Your task to perform on an android device: Check the news Image 0: 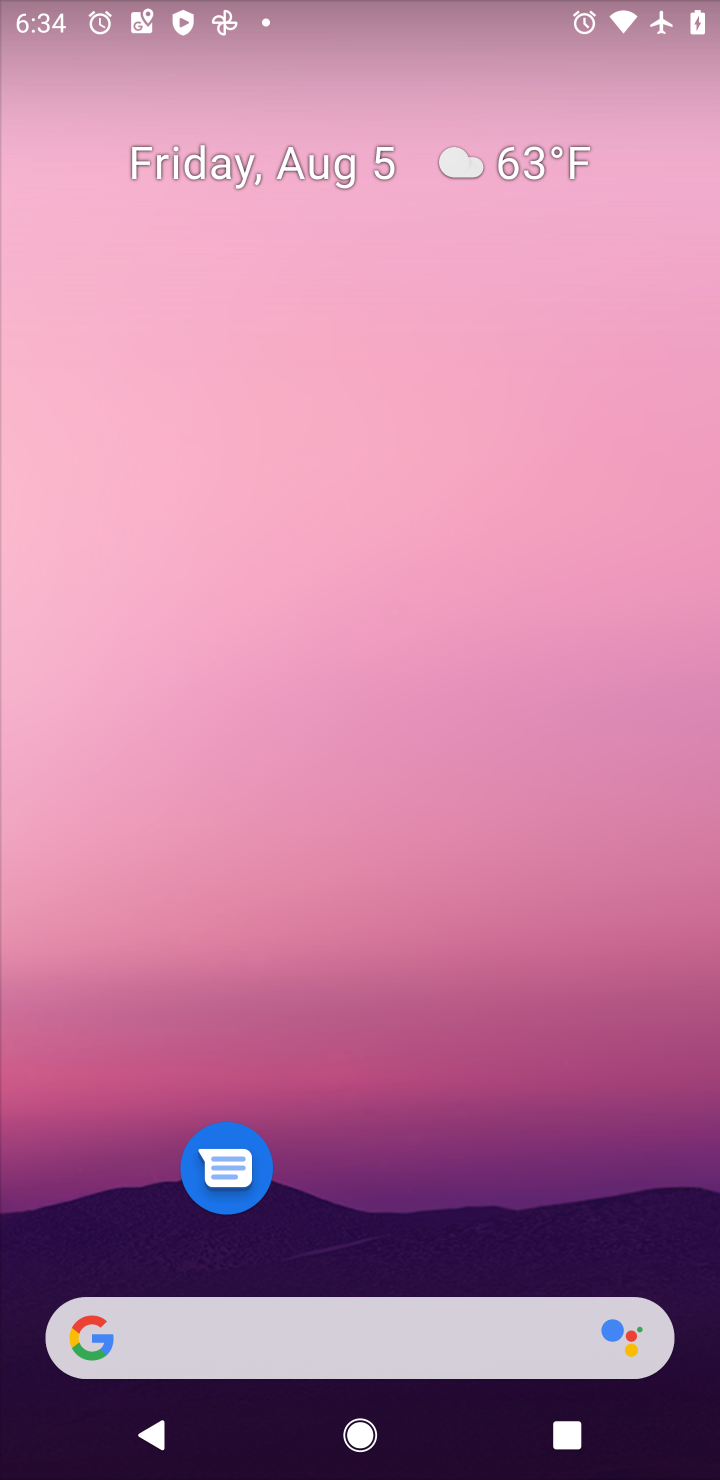
Step 0: click (97, 1327)
Your task to perform on an android device: Check the news Image 1: 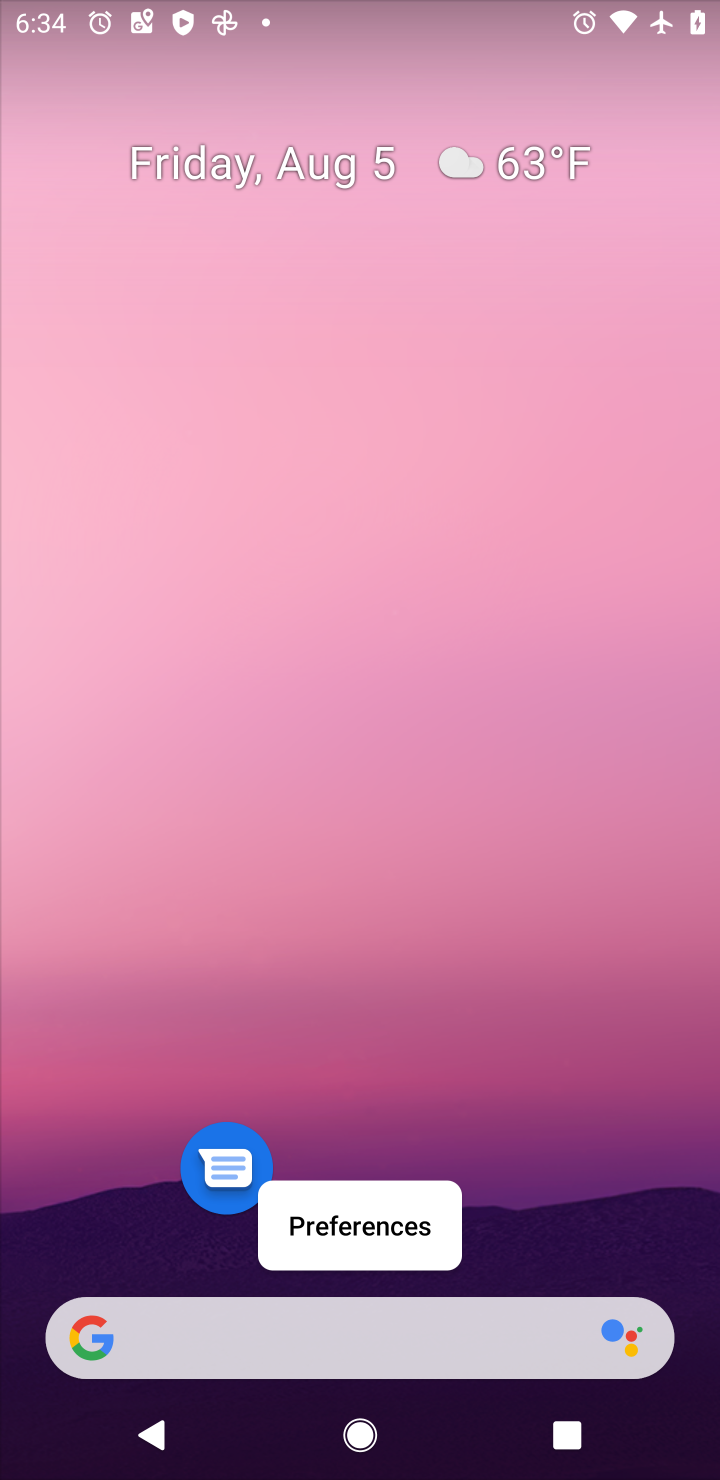
Step 1: click (87, 1359)
Your task to perform on an android device: Check the news Image 2: 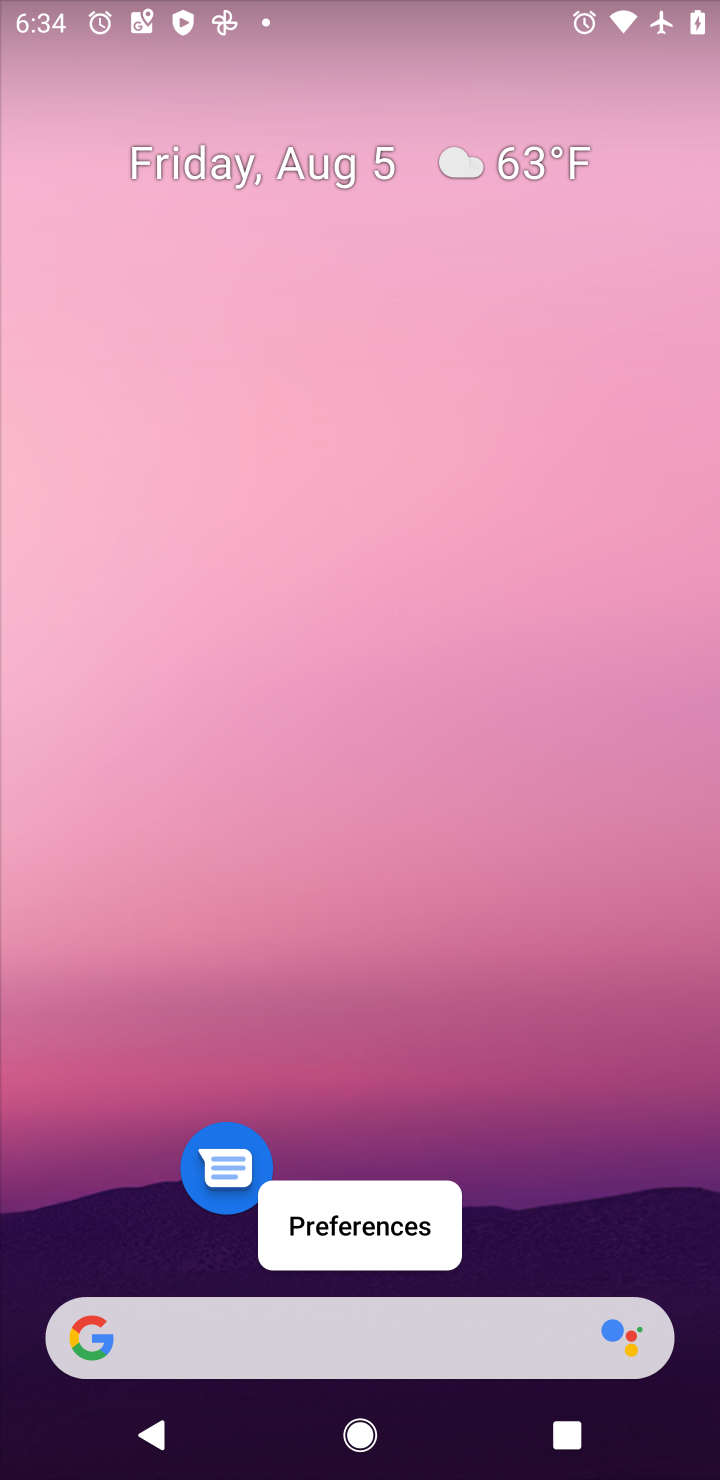
Step 2: click (90, 1338)
Your task to perform on an android device: Check the news Image 3: 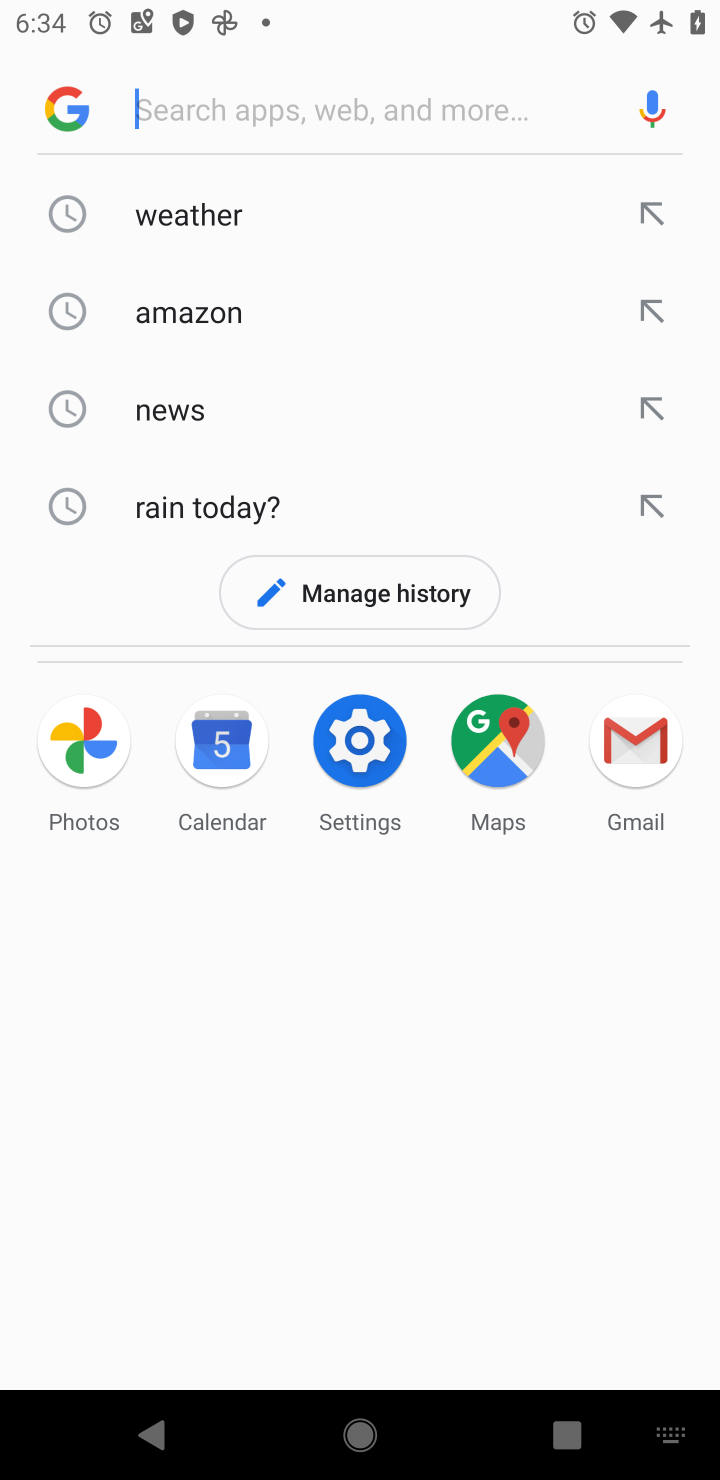
Step 3: click (176, 411)
Your task to perform on an android device: Check the news Image 4: 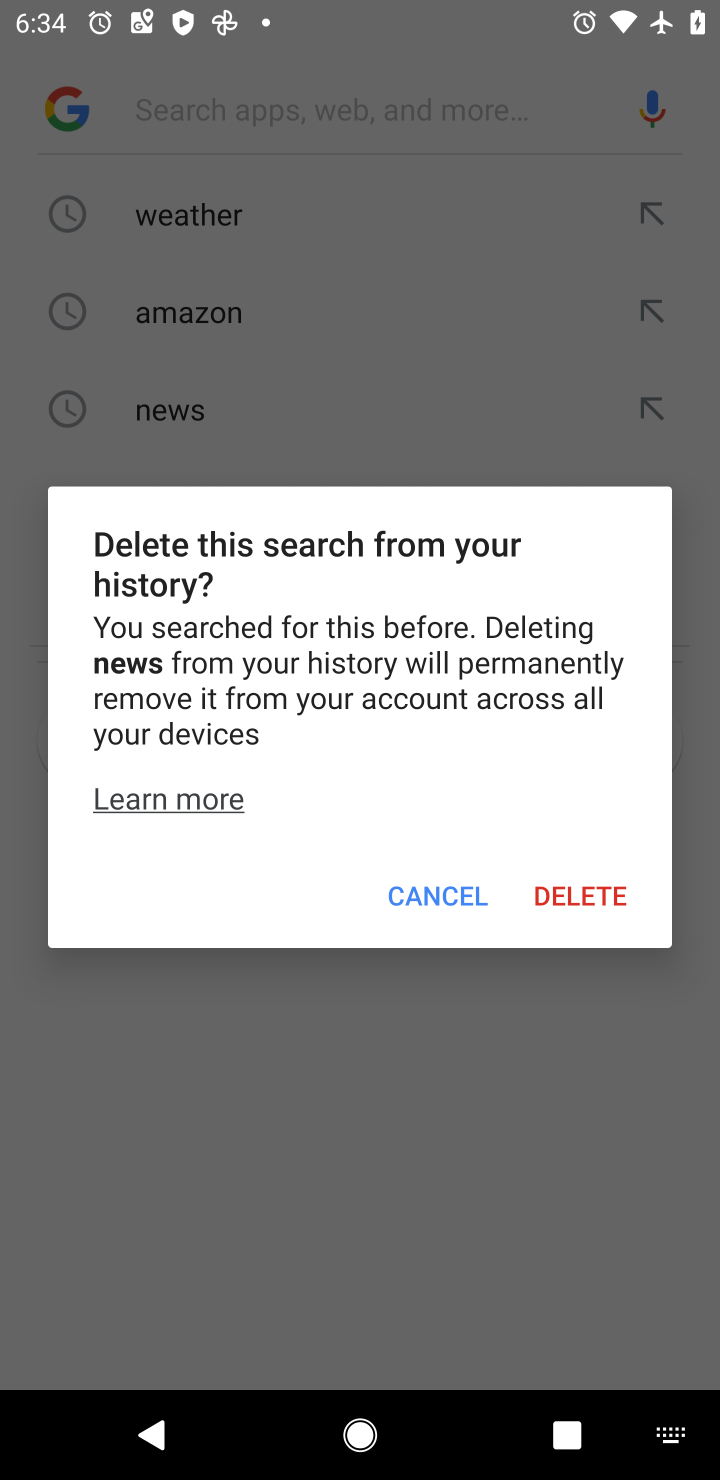
Step 4: click (419, 899)
Your task to perform on an android device: Check the news Image 5: 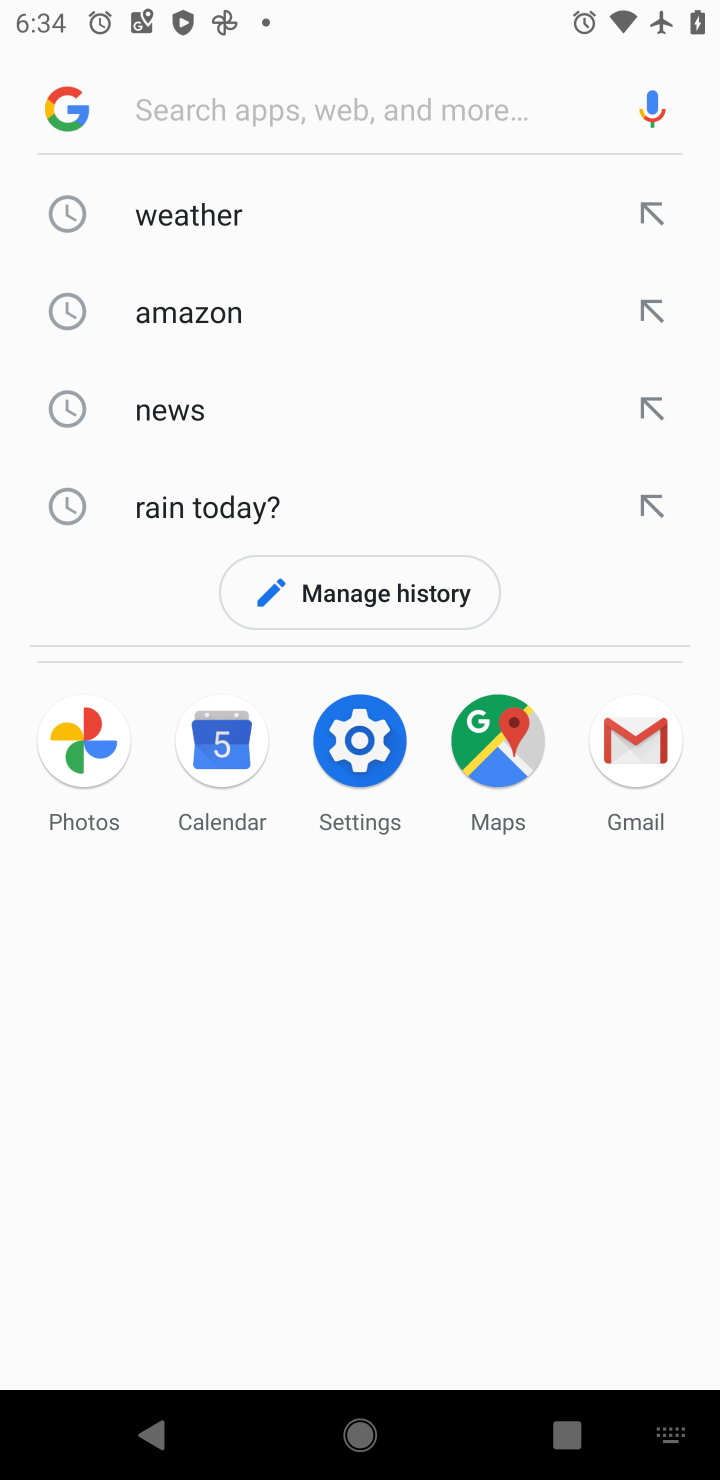
Step 5: click (161, 425)
Your task to perform on an android device: Check the news Image 6: 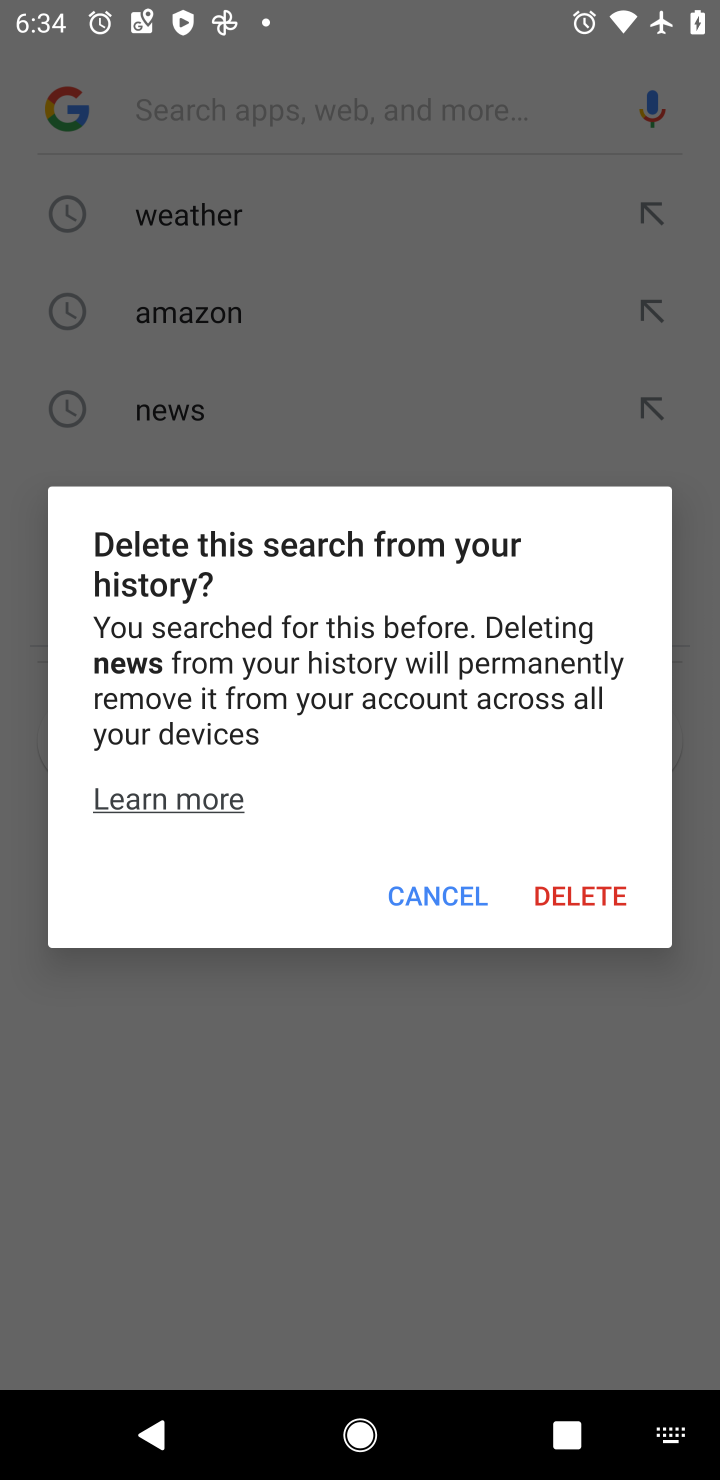
Step 6: click (442, 905)
Your task to perform on an android device: Check the news Image 7: 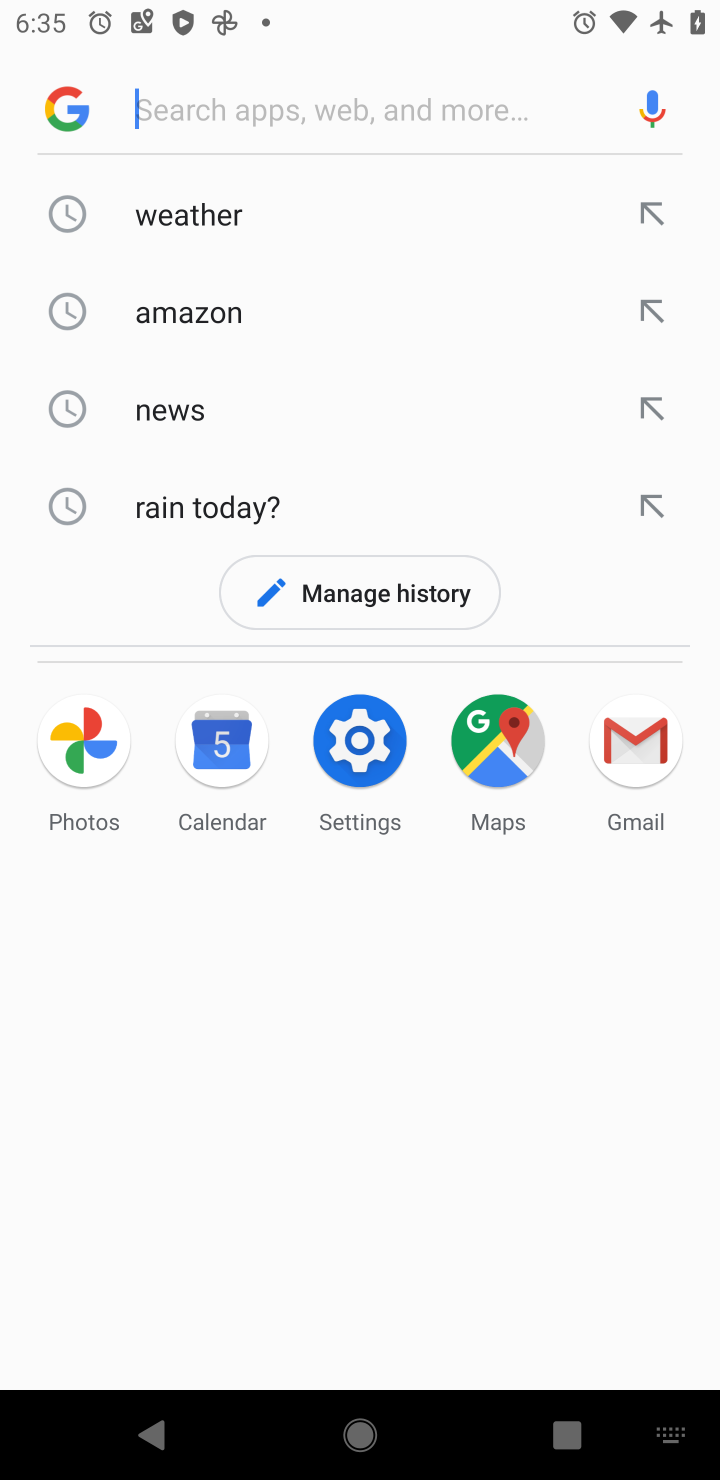
Step 7: type "news"
Your task to perform on an android device: Check the news Image 8: 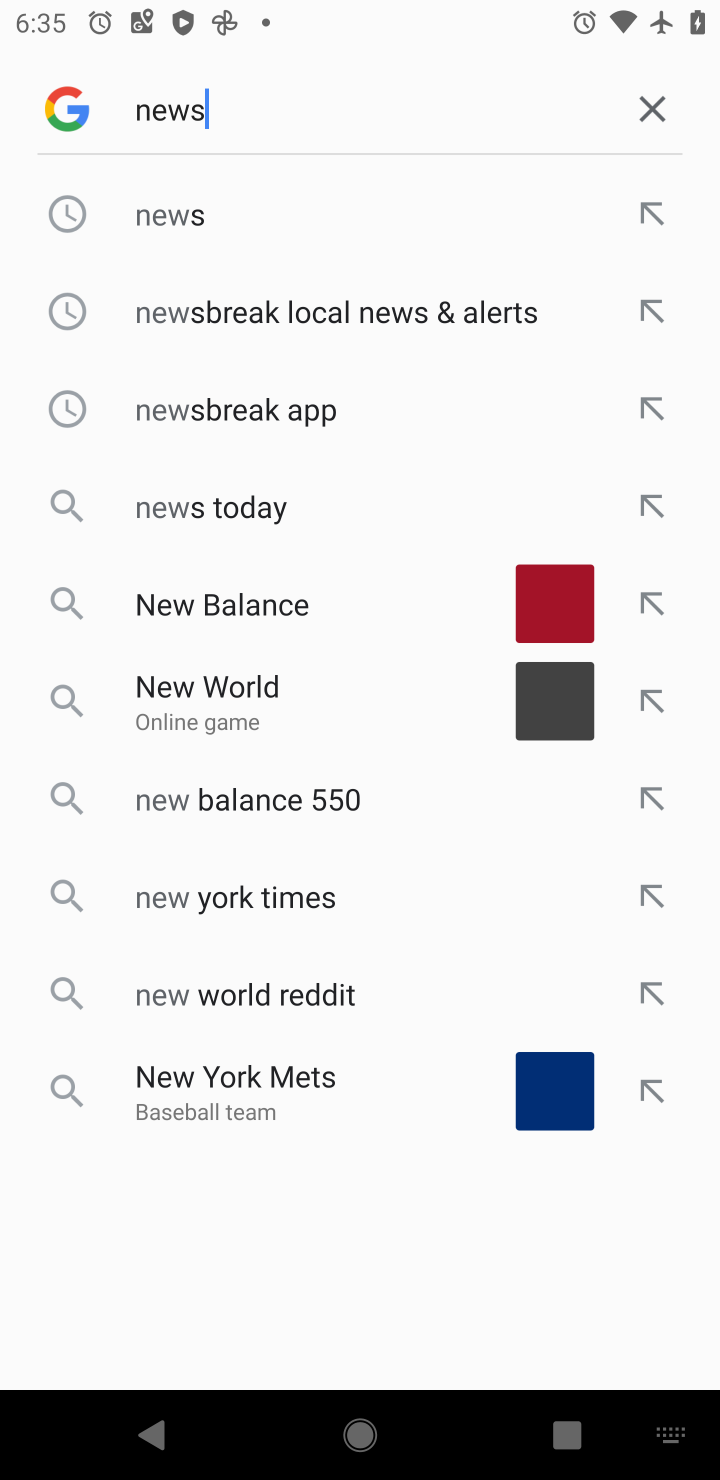
Step 8: press enter
Your task to perform on an android device: Check the news Image 9: 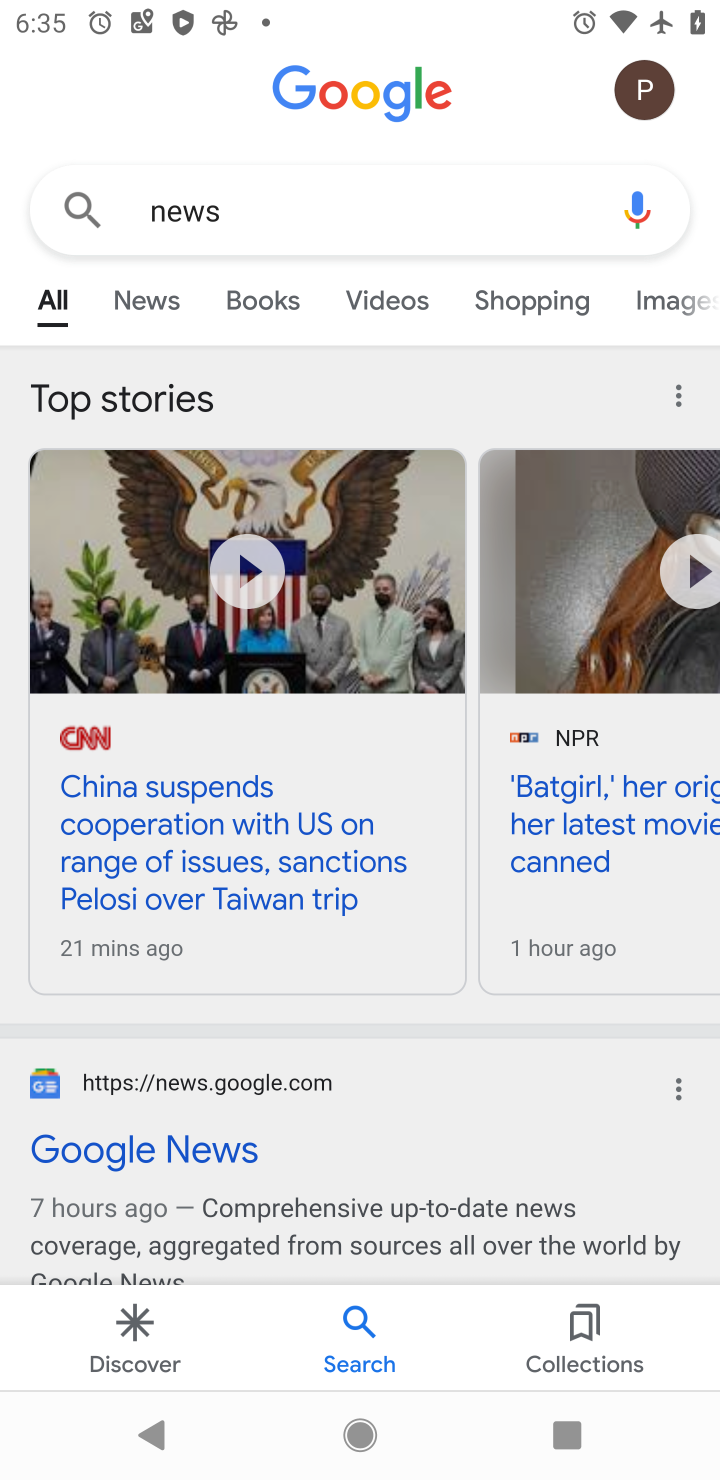
Step 9: task complete